Your task to perform on an android device: open app "DoorDash - Dasher" (install if not already installed) Image 0: 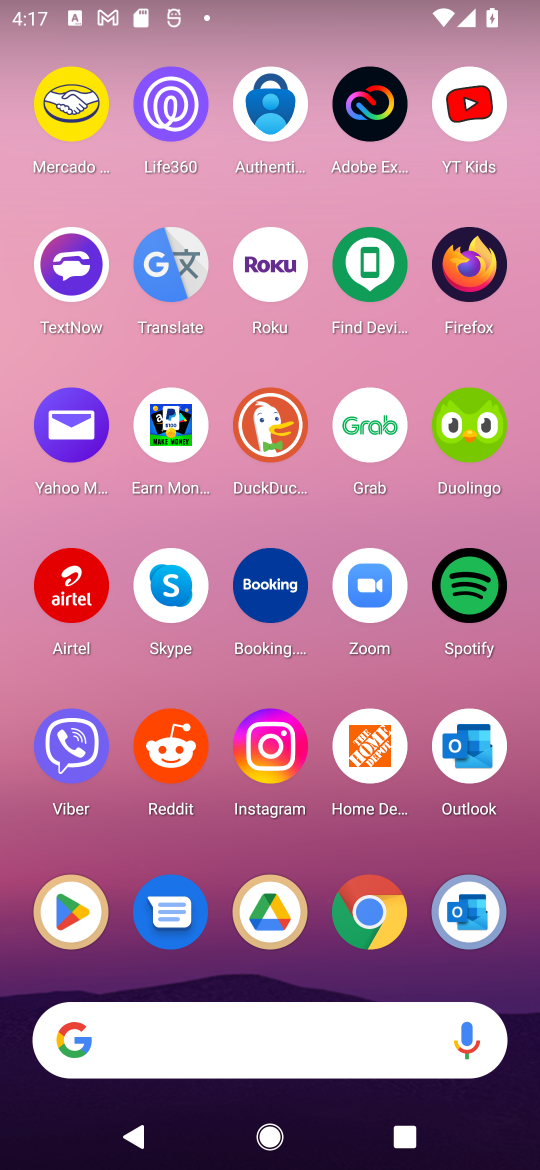
Step 0: click (73, 925)
Your task to perform on an android device: open app "DoorDash - Dasher" (install if not already installed) Image 1: 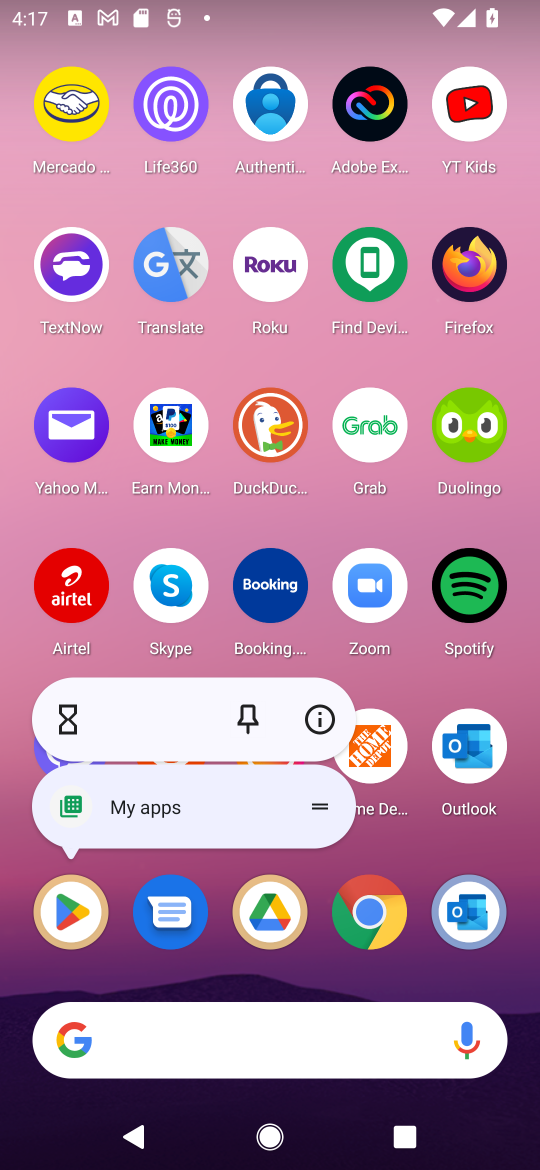
Step 1: click (73, 925)
Your task to perform on an android device: open app "DoorDash - Dasher" (install if not already installed) Image 2: 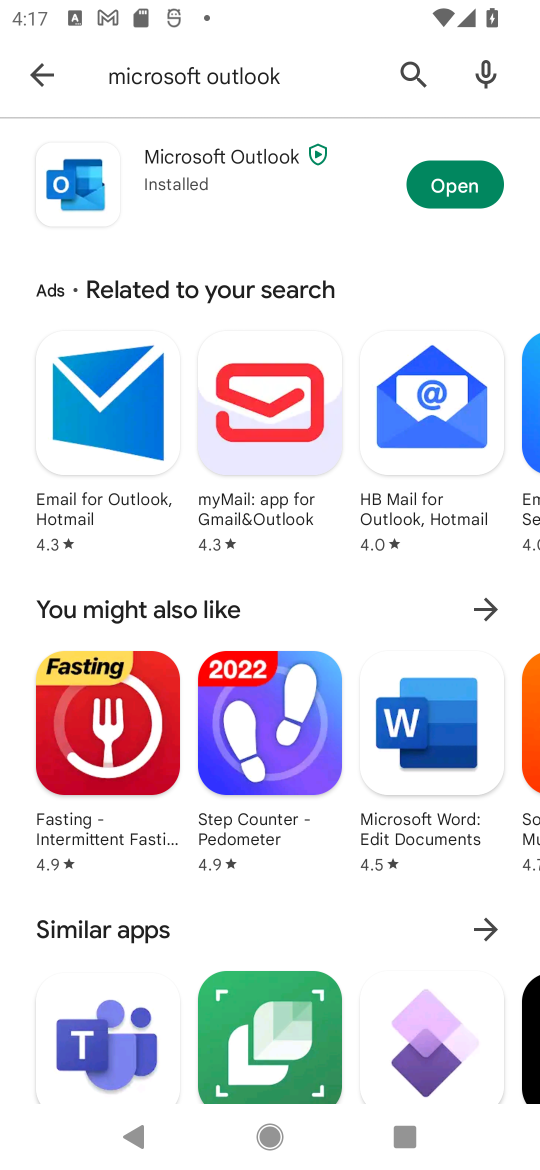
Step 2: click (398, 74)
Your task to perform on an android device: open app "DoorDash - Dasher" (install if not already installed) Image 3: 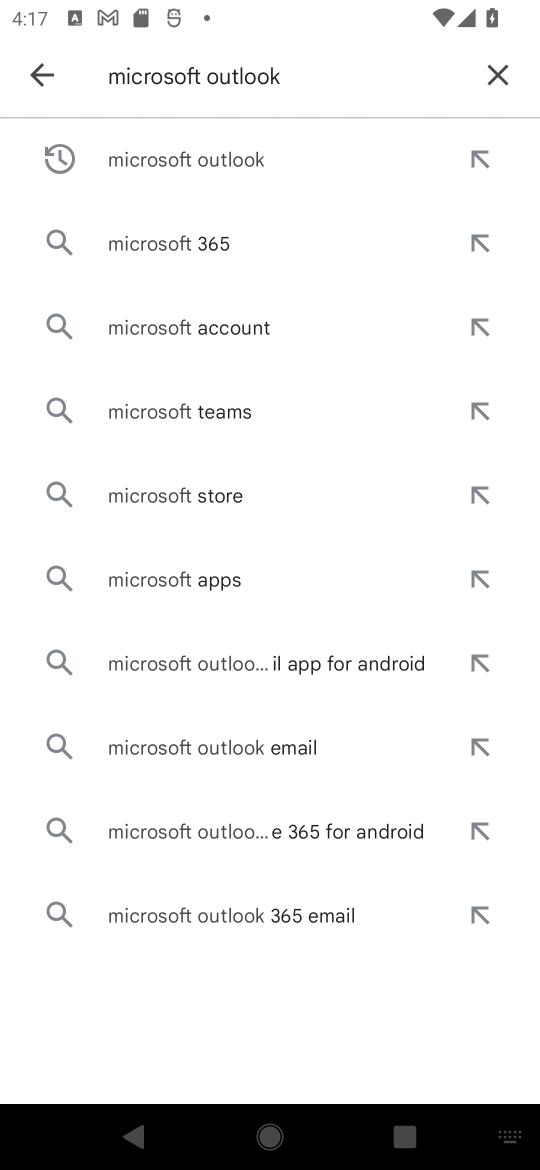
Step 3: click (492, 79)
Your task to perform on an android device: open app "DoorDash - Dasher" (install if not already installed) Image 4: 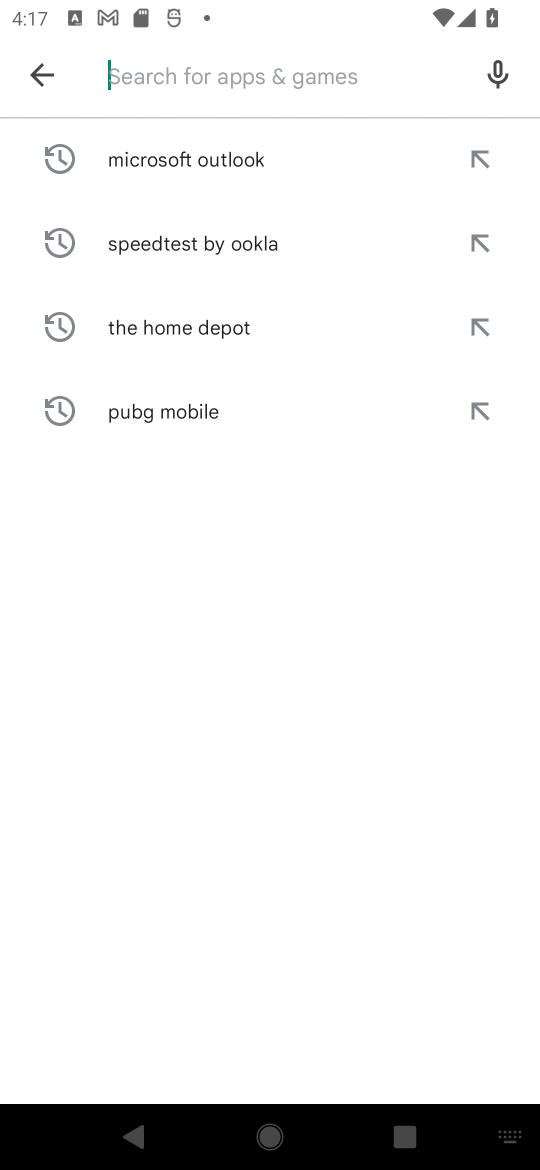
Step 4: type "DoorDash - Dasher"
Your task to perform on an android device: open app "DoorDash - Dasher" (install if not already installed) Image 5: 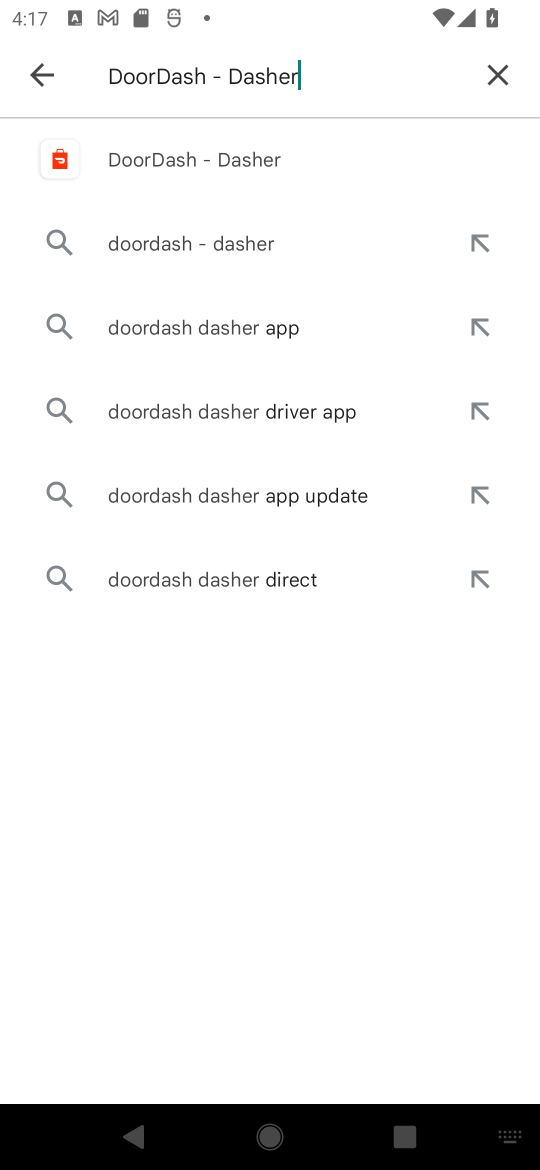
Step 5: click (171, 156)
Your task to perform on an android device: open app "DoorDash - Dasher" (install if not already installed) Image 6: 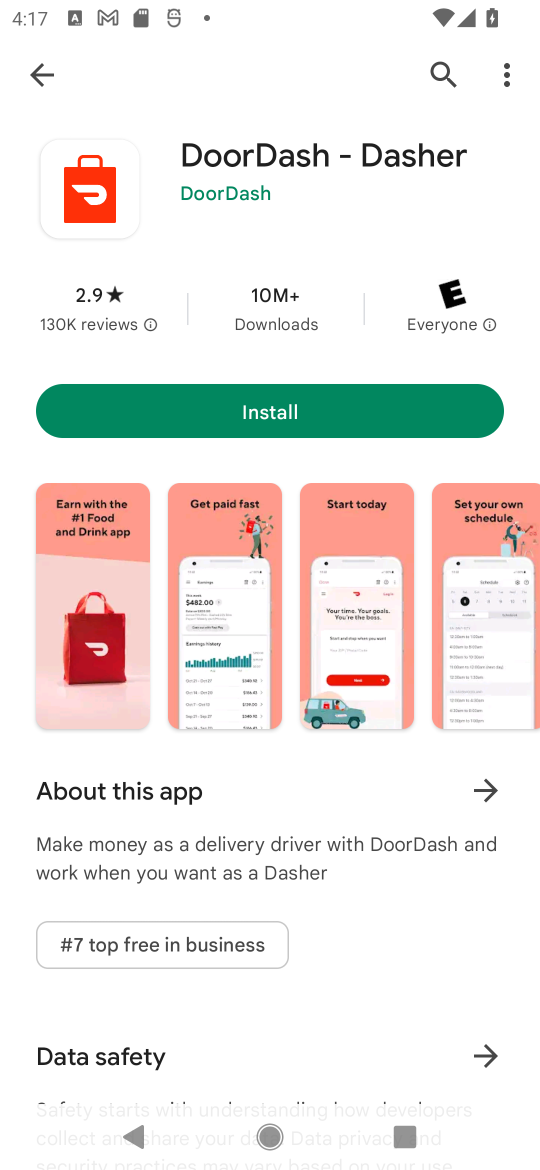
Step 6: click (237, 398)
Your task to perform on an android device: open app "DoorDash - Dasher" (install if not already installed) Image 7: 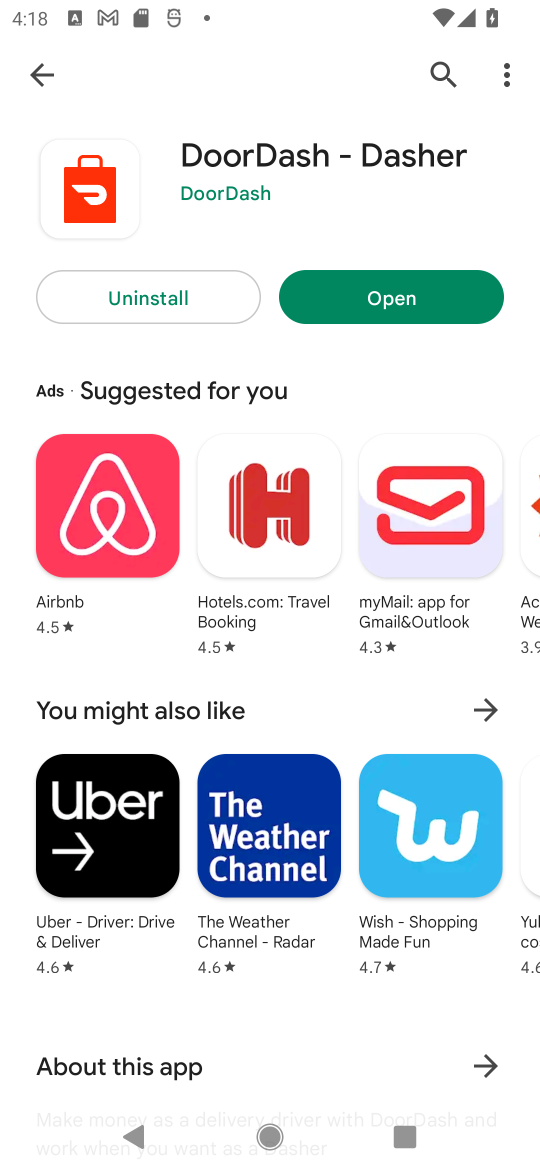
Step 7: click (371, 311)
Your task to perform on an android device: open app "DoorDash - Dasher" (install if not already installed) Image 8: 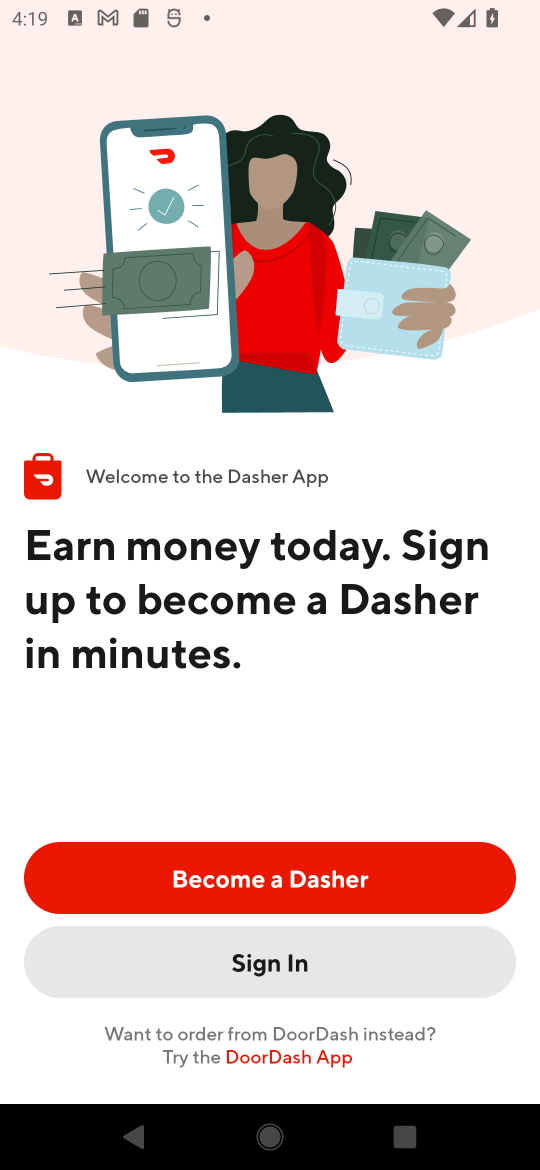
Step 8: task complete